Your task to perform on an android device: Open network settings Image 0: 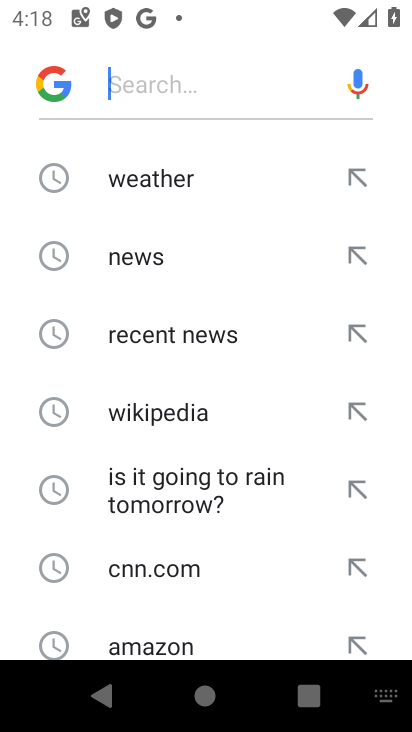
Step 0: press home button
Your task to perform on an android device: Open network settings Image 1: 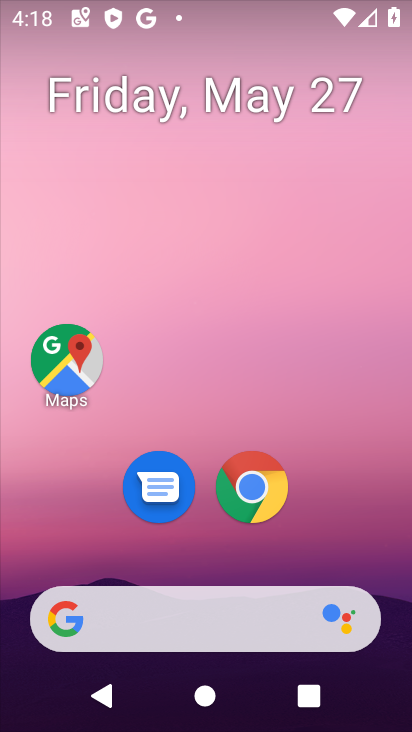
Step 1: drag from (376, 549) to (338, 76)
Your task to perform on an android device: Open network settings Image 2: 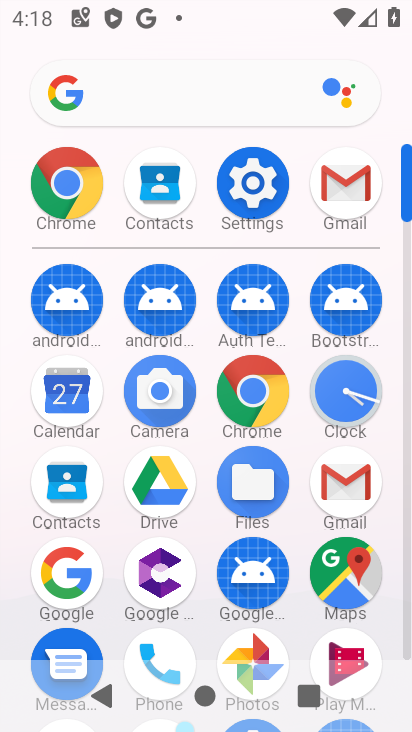
Step 2: click (255, 182)
Your task to perform on an android device: Open network settings Image 3: 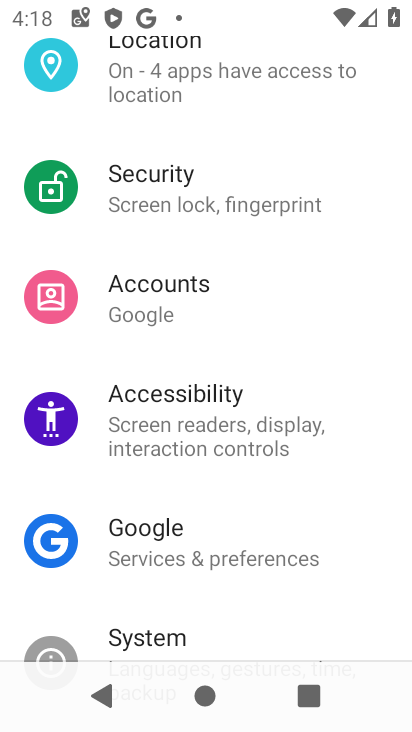
Step 3: drag from (255, 146) to (257, 570)
Your task to perform on an android device: Open network settings Image 4: 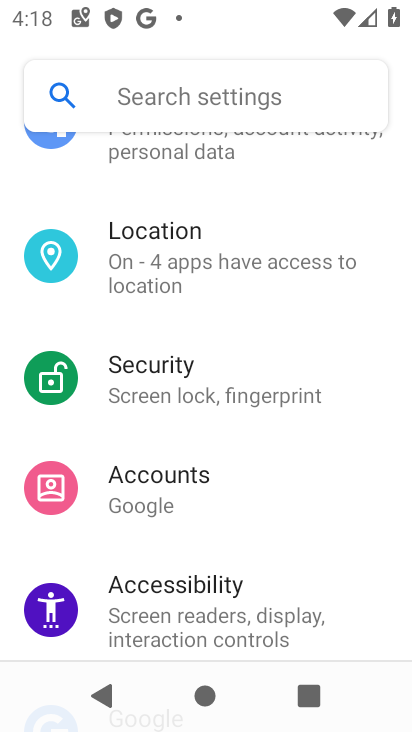
Step 4: drag from (251, 186) to (243, 539)
Your task to perform on an android device: Open network settings Image 5: 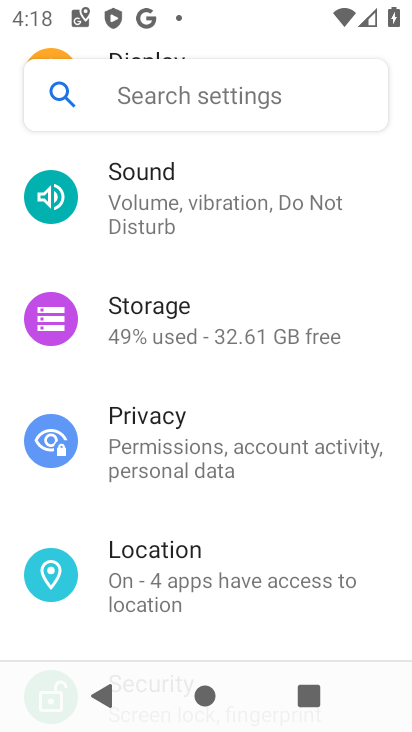
Step 5: drag from (228, 200) to (217, 653)
Your task to perform on an android device: Open network settings Image 6: 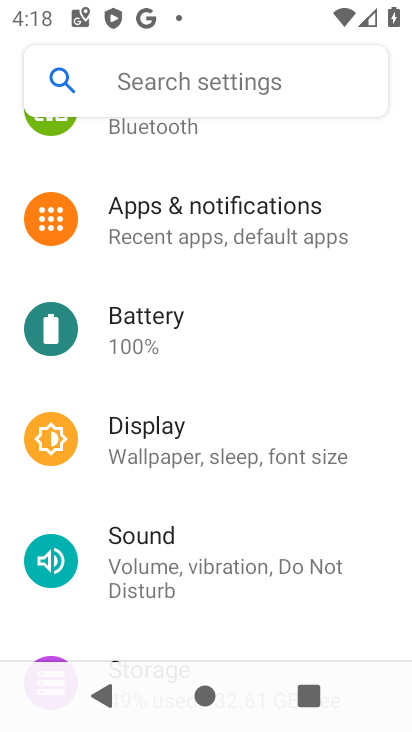
Step 6: drag from (209, 254) to (201, 587)
Your task to perform on an android device: Open network settings Image 7: 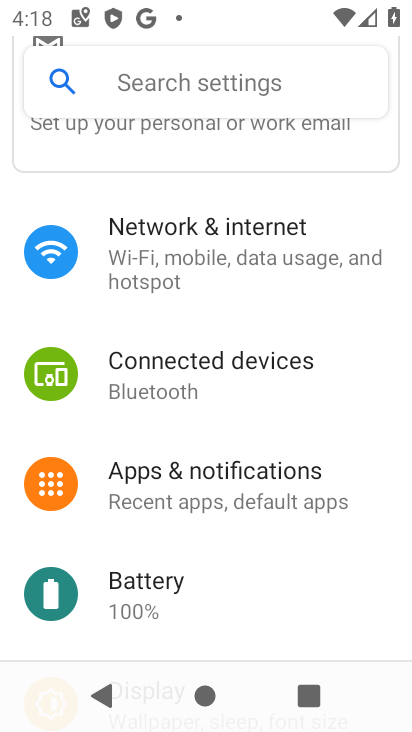
Step 7: drag from (210, 306) to (193, 614)
Your task to perform on an android device: Open network settings Image 8: 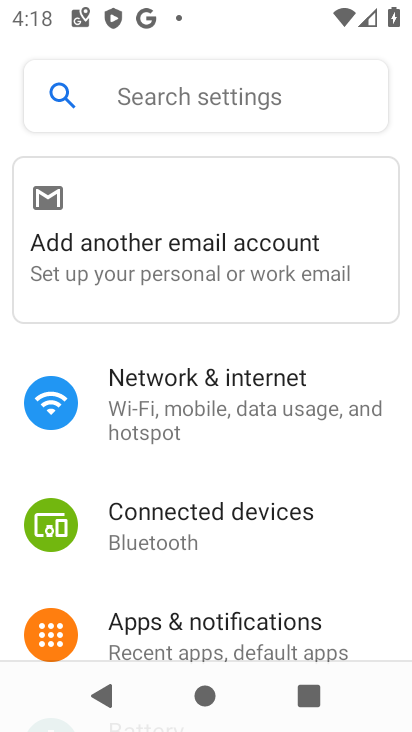
Step 8: click (194, 386)
Your task to perform on an android device: Open network settings Image 9: 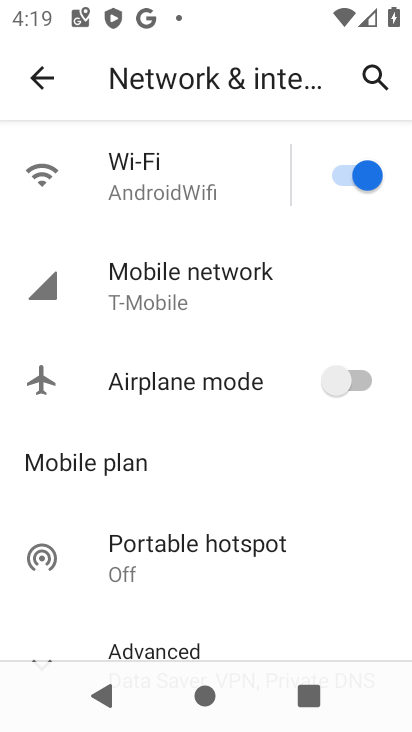
Step 9: task complete